Your task to perform on an android device: stop showing notifications on the lock screen Image 0: 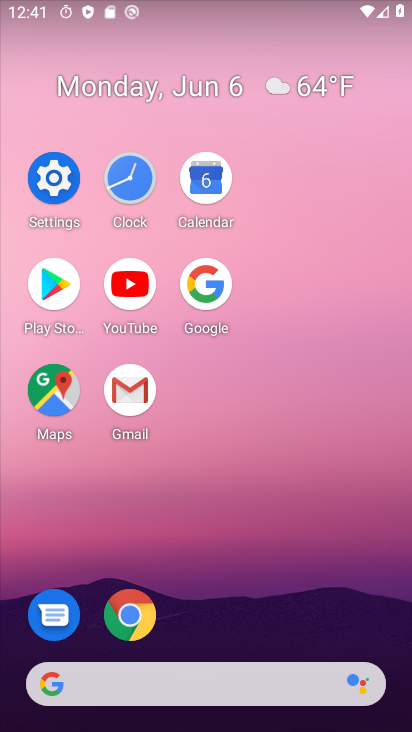
Step 0: click (64, 171)
Your task to perform on an android device: stop showing notifications on the lock screen Image 1: 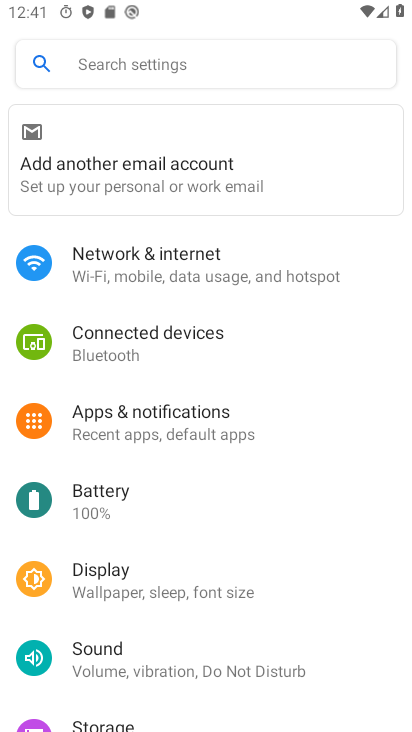
Step 1: click (218, 411)
Your task to perform on an android device: stop showing notifications on the lock screen Image 2: 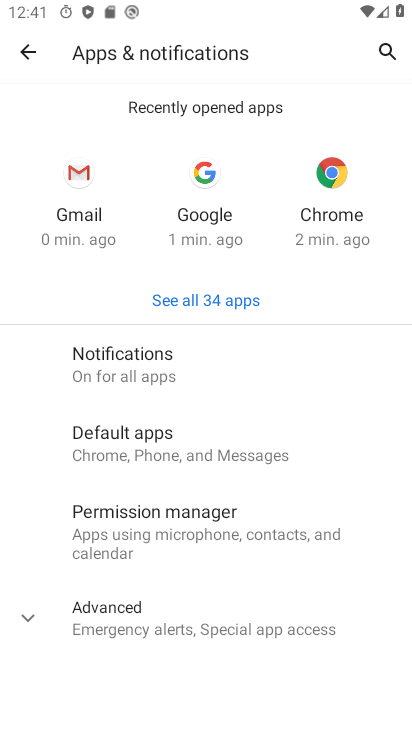
Step 2: click (152, 633)
Your task to perform on an android device: stop showing notifications on the lock screen Image 3: 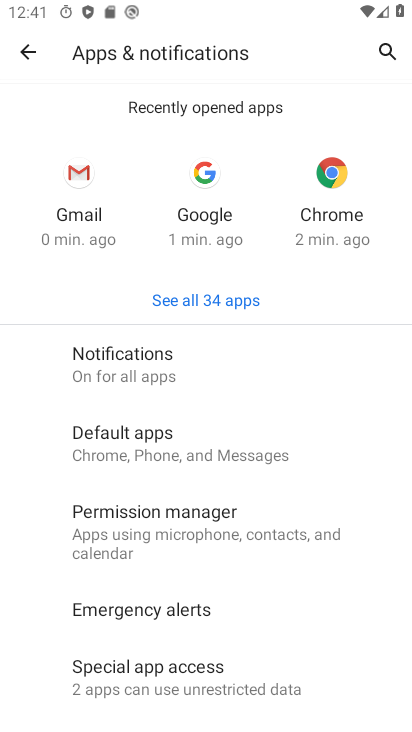
Step 3: drag from (154, 629) to (160, 225)
Your task to perform on an android device: stop showing notifications on the lock screen Image 4: 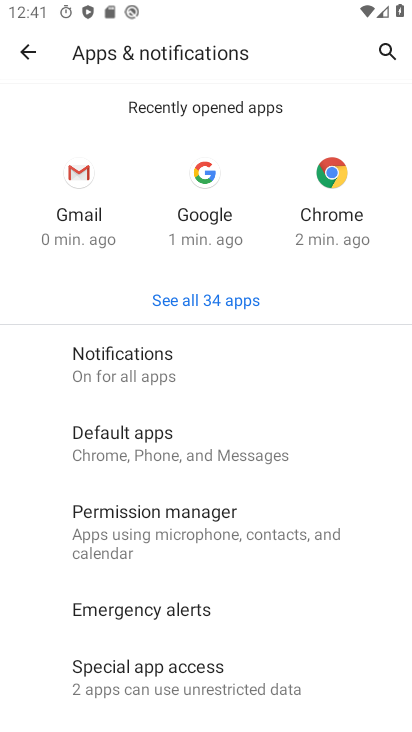
Step 4: click (153, 338)
Your task to perform on an android device: stop showing notifications on the lock screen Image 5: 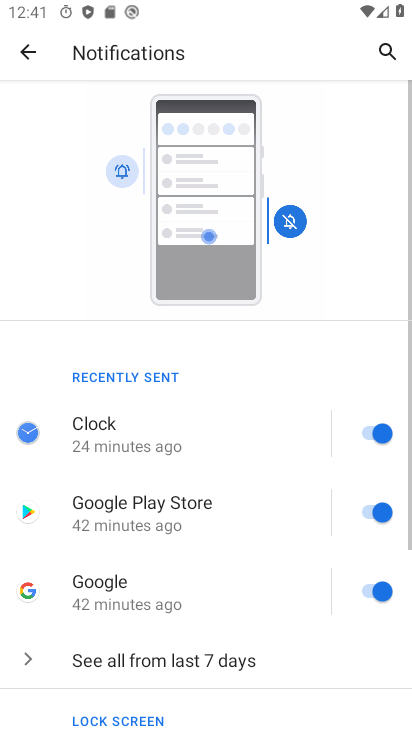
Step 5: drag from (195, 623) to (178, 244)
Your task to perform on an android device: stop showing notifications on the lock screen Image 6: 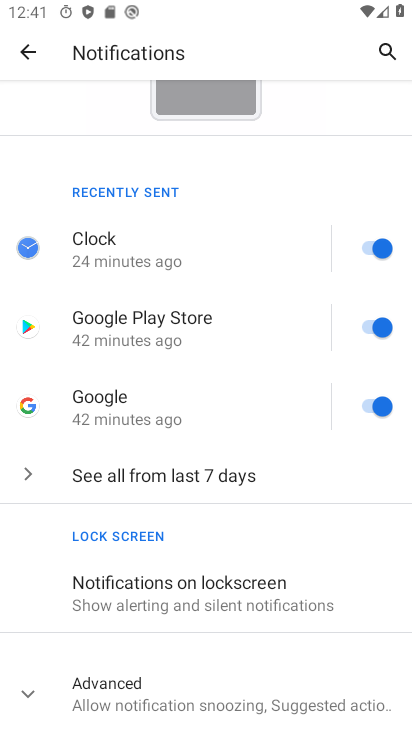
Step 6: click (245, 595)
Your task to perform on an android device: stop showing notifications on the lock screen Image 7: 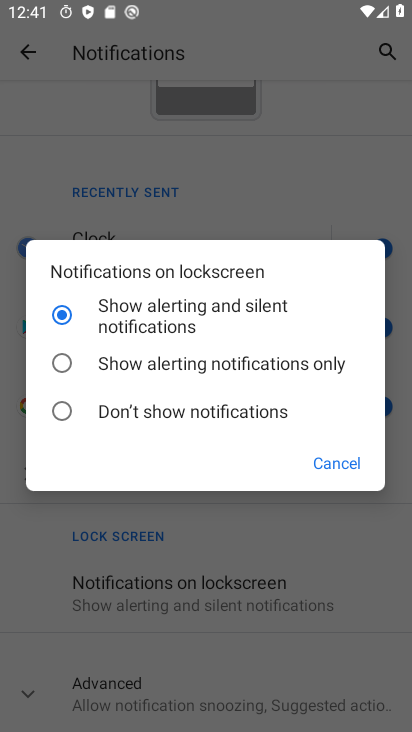
Step 7: click (162, 407)
Your task to perform on an android device: stop showing notifications on the lock screen Image 8: 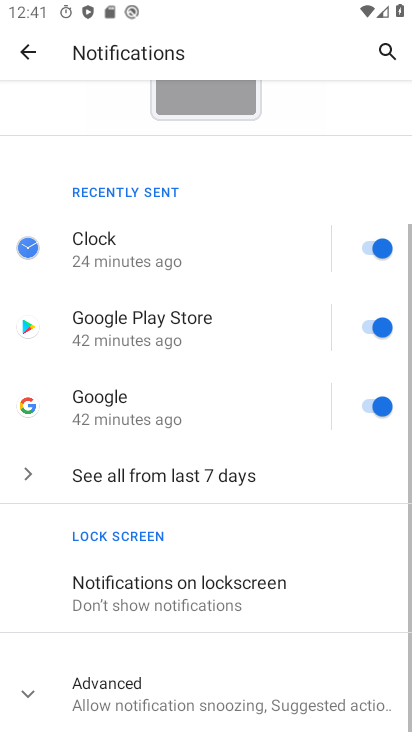
Step 8: task complete